Your task to perform on an android device: Open privacy settings Image 0: 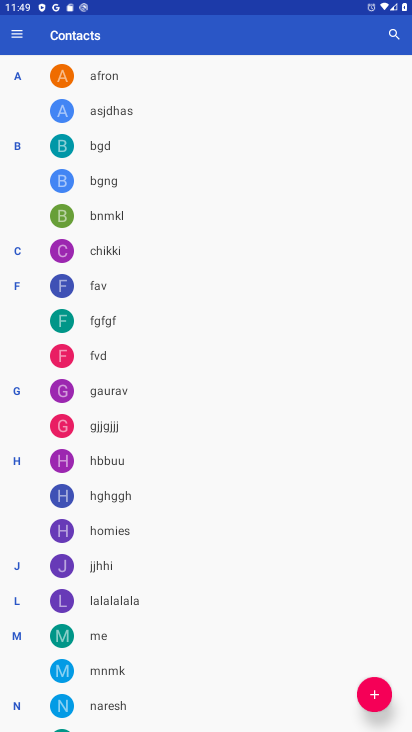
Step 0: press home button
Your task to perform on an android device: Open privacy settings Image 1: 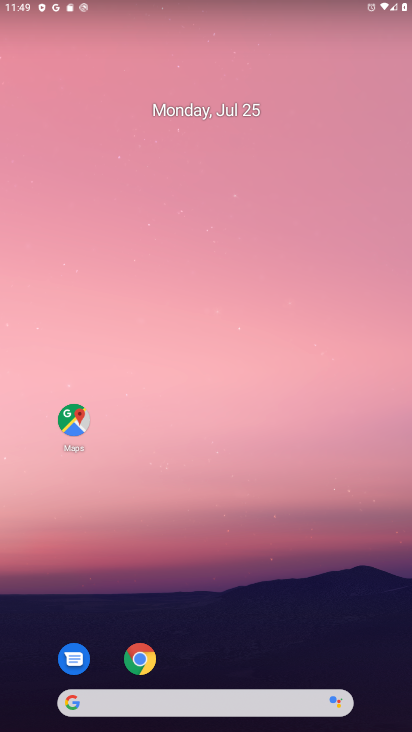
Step 1: drag from (245, 606) to (142, 5)
Your task to perform on an android device: Open privacy settings Image 2: 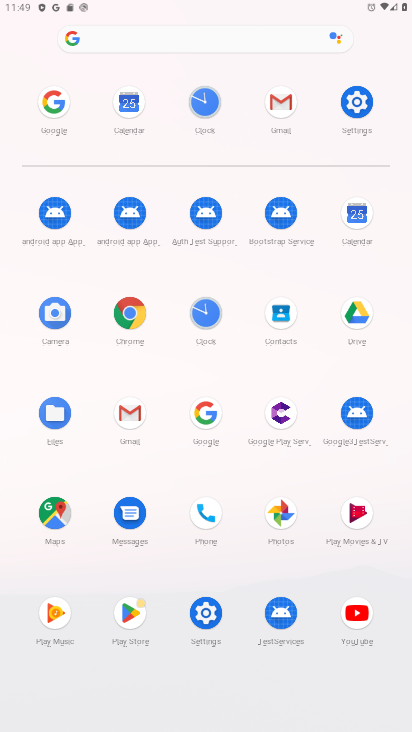
Step 2: click (359, 99)
Your task to perform on an android device: Open privacy settings Image 3: 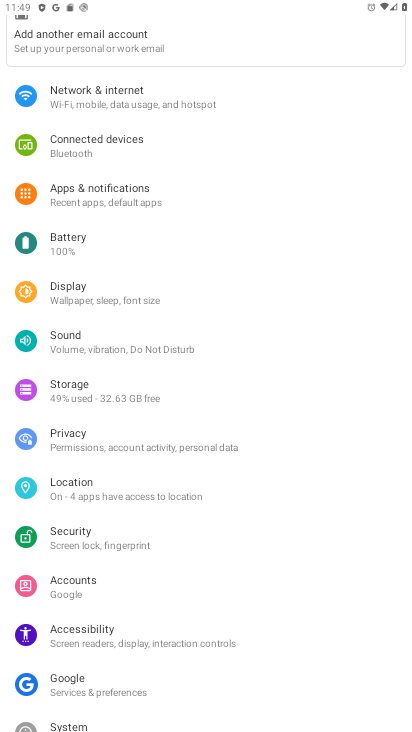
Step 3: click (69, 438)
Your task to perform on an android device: Open privacy settings Image 4: 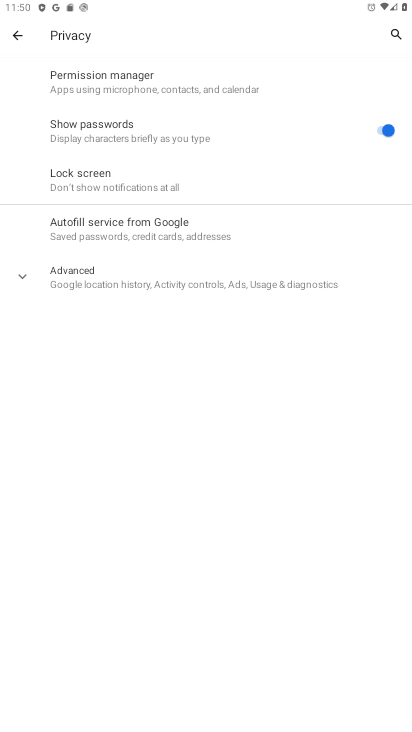
Step 4: task complete